Your task to perform on an android device: manage bookmarks in the chrome app Image 0: 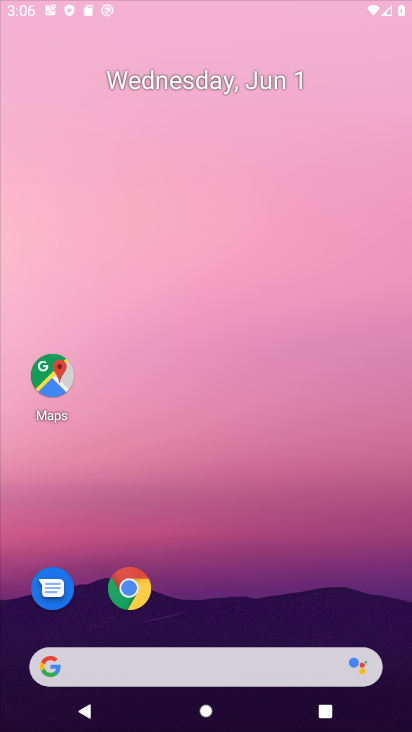
Step 0: drag from (253, 106) to (304, 606)
Your task to perform on an android device: manage bookmarks in the chrome app Image 1: 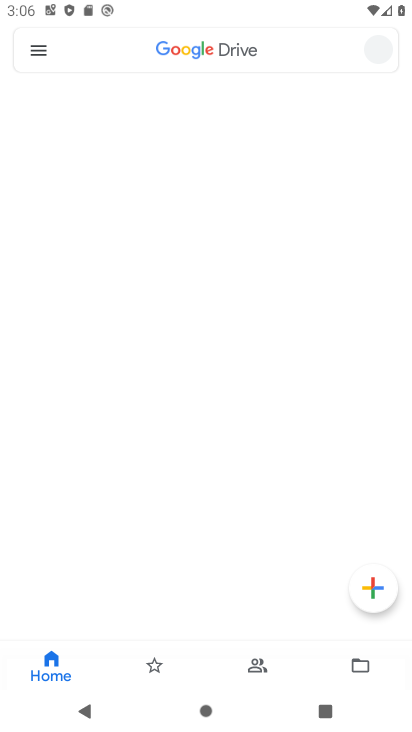
Step 1: drag from (304, 606) to (305, 45)
Your task to perform on an android device: manage bookmarks in the chrome app Image 2: 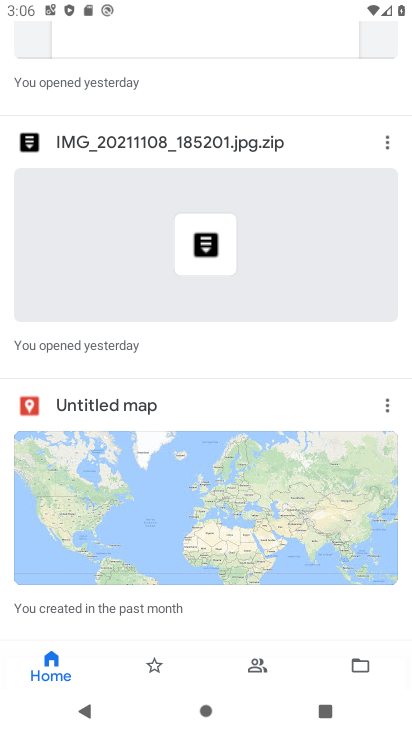
Step 2: press home button
Your task to perform on an android device: manage bookmarks in the chrome app Image 3: 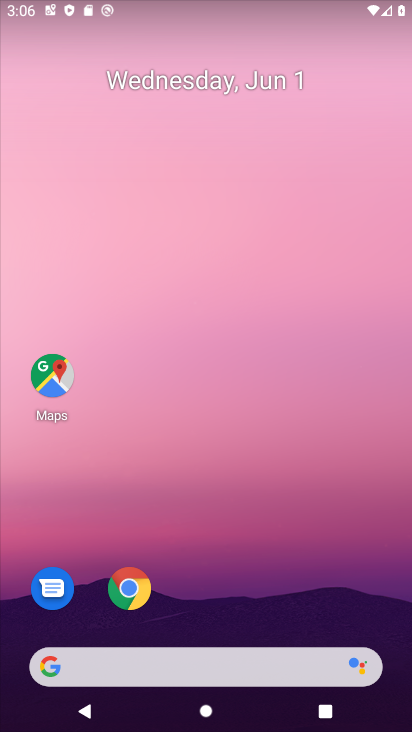
Step 3: click (140, 588)
Your task to perform on an android device: manage bookmarks in the chrome app Image 4: 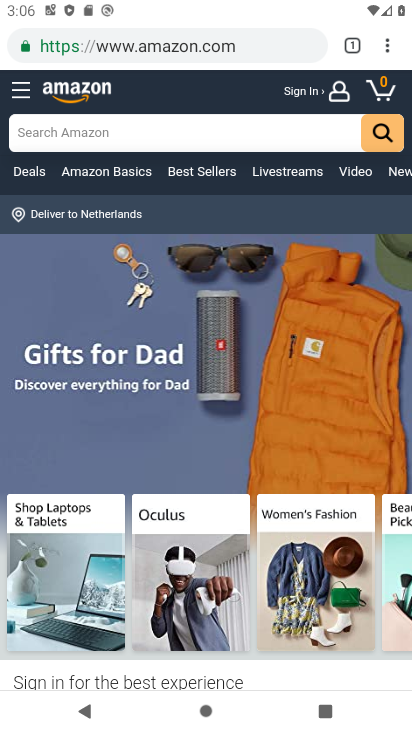
Step 4: click (387, 43)
Your task to perform on an android device: manage bookmarks in the chrome app Image 5: 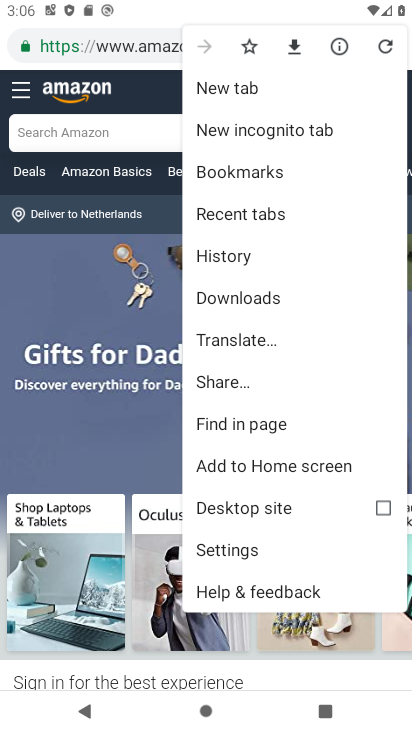
Step 5: click (238, 178)
Your task to perform on an android device: manage bookmarks in the chrome app Image 6: 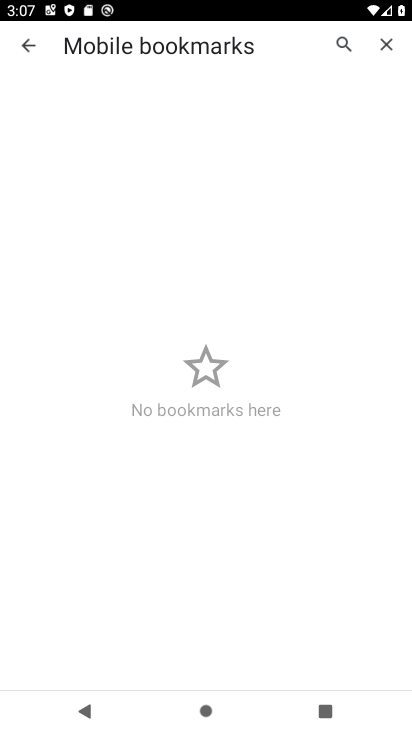
Step 6: task complete